Your task to perform on an android device: turn vacation reply on in the gmail app Image 0: 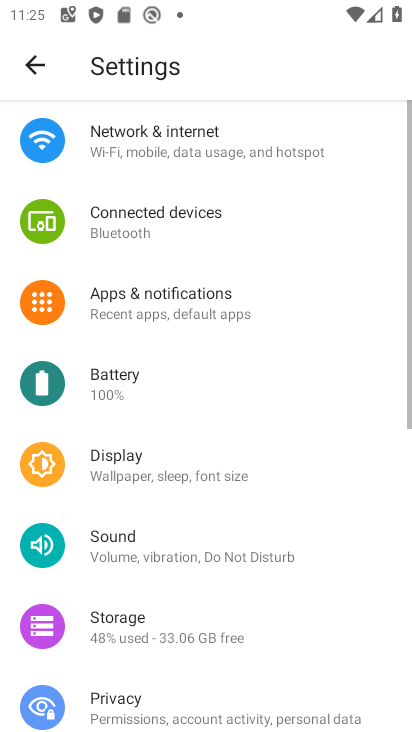
Step 0: press home button
Your task to perform on an android device: turn vacation reply on in the gmail app Image 1: 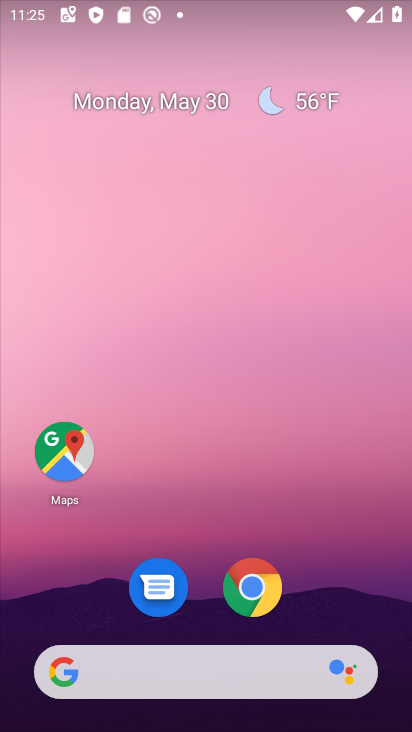
Step 1: drag from (327, 611) to (346, 4)
Your task to perform on an android device: turn vacation reply on in the gmail app Image 2: 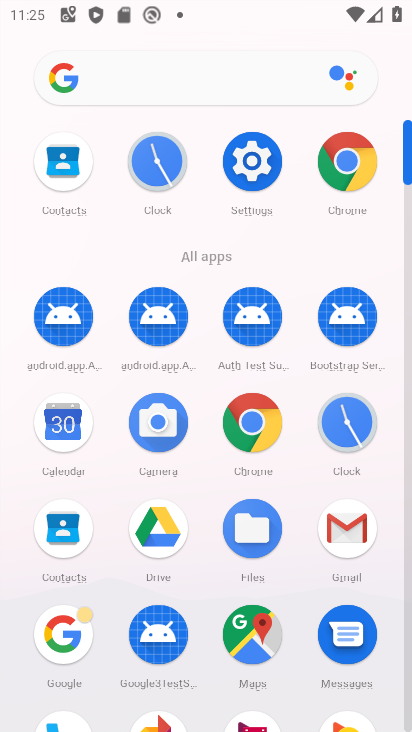
Step 2: click (343, 527)
Your task to perform on an android device: turn vacation reply on in the gmail app Image 3: 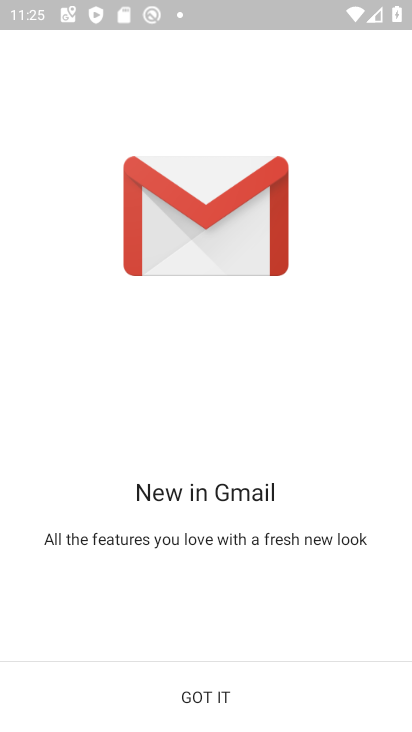
Step 3: click (222, 682)
Your task to perform on an android device: turn vacation reply on in the gmail app Image 4: 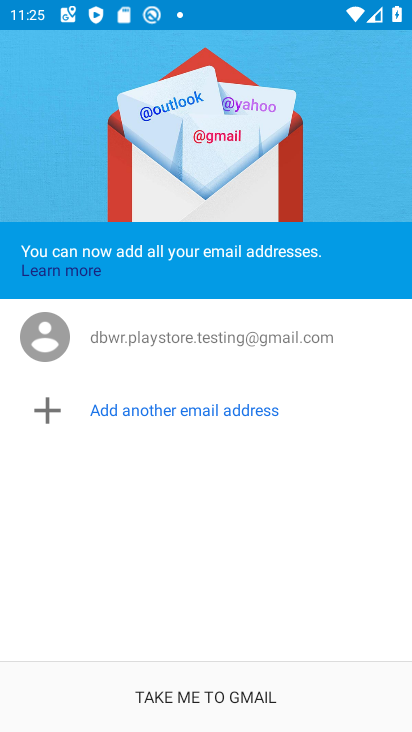
Step 4: click (219, 692)
Your task to perform on an android device: turn vacation reply on in the gmail app Image 5: 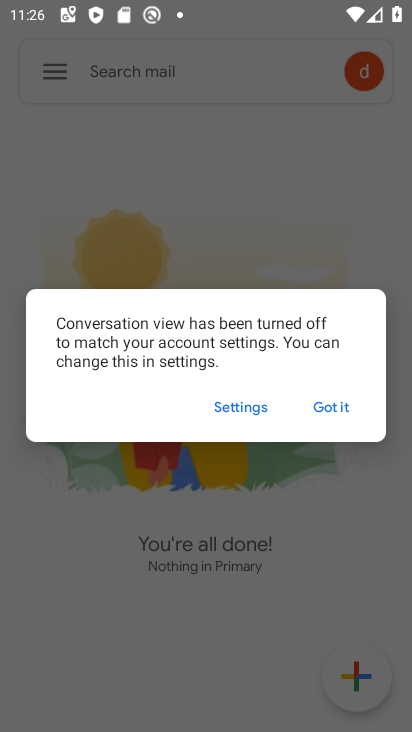
Step 5: click (334, 408)
Your task to perform on an android device: turn vacation reply on in the gmail app Image 6: 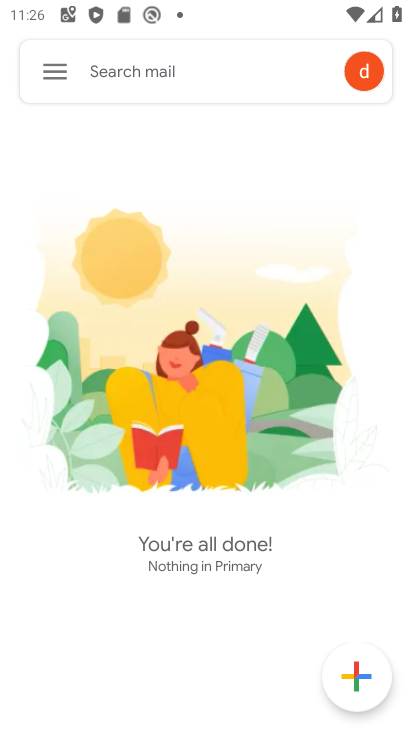
Step 6: click (55, 69)
Your task to perform on an android device: turn vacation reply on in the gmail app Image 7: 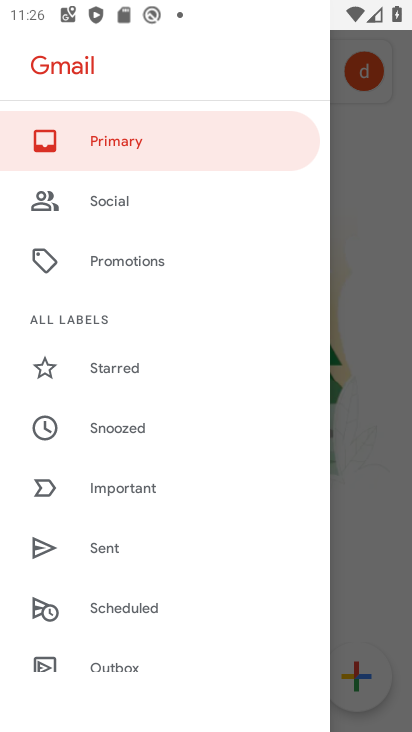
Step 7: drag from (148, 637) to (182, 216)
Your task to perform on an android device: turn vacation reply on in the gmail app Image 8: 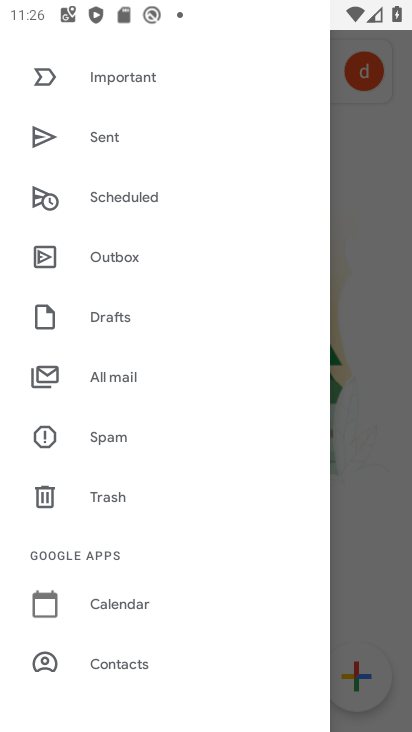
Step 8: drag from (109, 599) to (151, 183)
Your task to perform on an android device: turn vacation reply on in the gmail app Image 9: 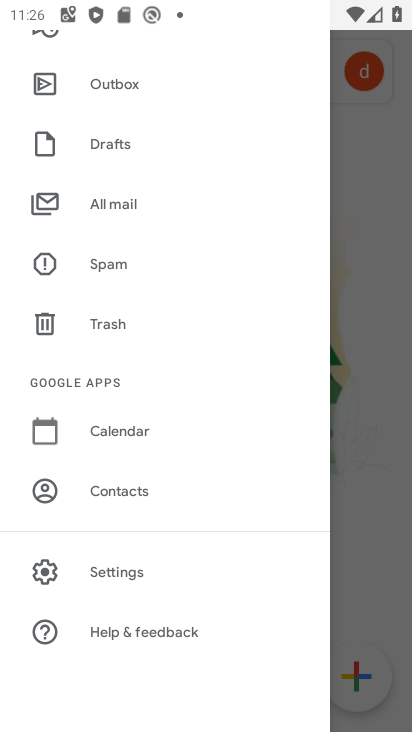
Step 9: click (120, 574)
Your task to perform on an android device: turn vacation reply on in the gmail app Image 10: 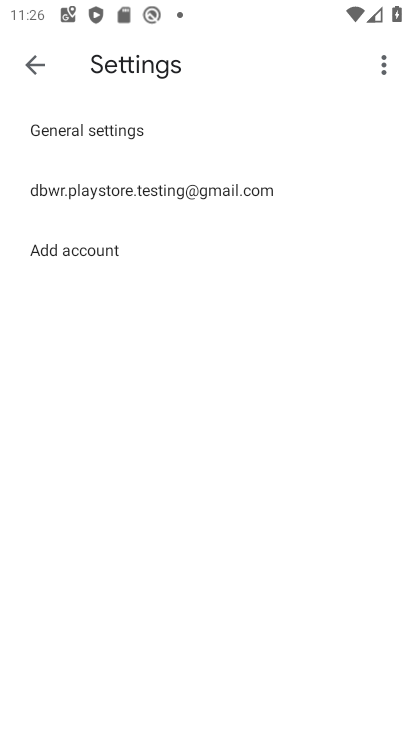
Step 10: click (114, 197)
Your task to perform on an android device: turn vacation reply on in the gmail app Image 11: 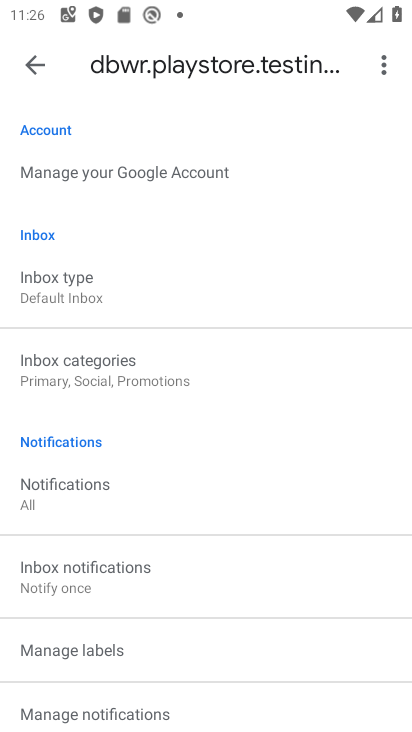
Step 11: drag from (145, 680) to (188, 200)
Your task to perform on an android device: turn vacation reply on in the gmail app Image 12: 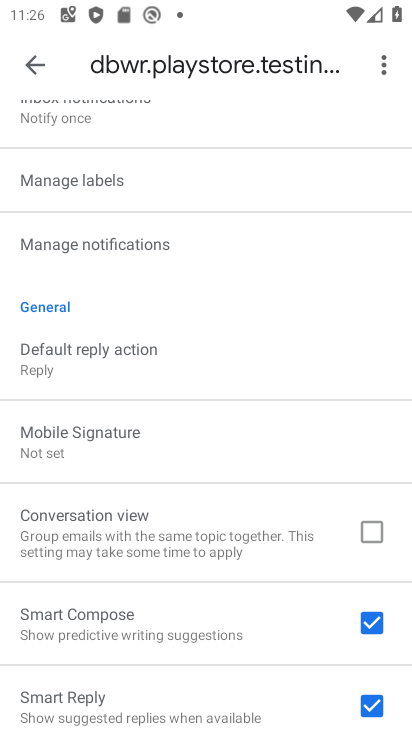
Step 12: drag from (183, 678) to (175, 218)
Your task to perform on an android device: turn vacation reply on in the gmail app Image 13: 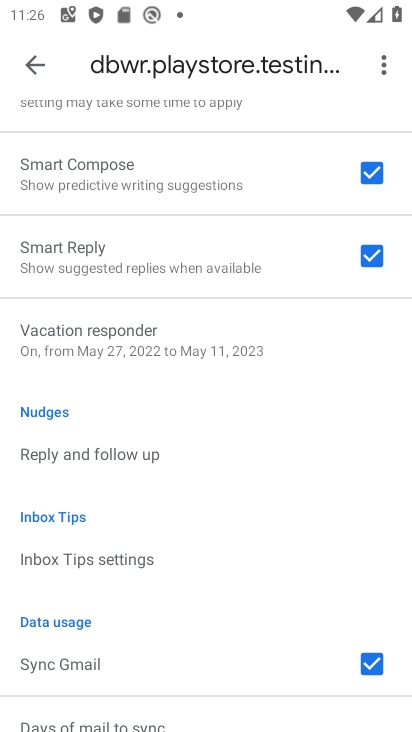
Step 13: click (184, 324)
Your task to perform on an android device: turn vacation reply on in the gmail app Image 14: 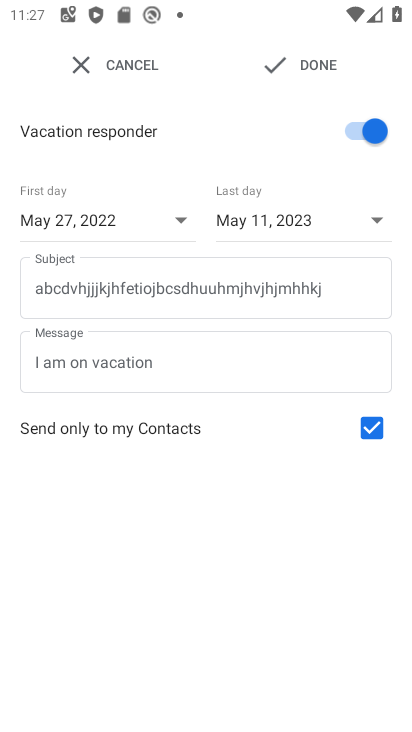
Step 14: click (319, 59)
Your task to perform on an android device: turn vacation reply on in the gmail app Image 15: 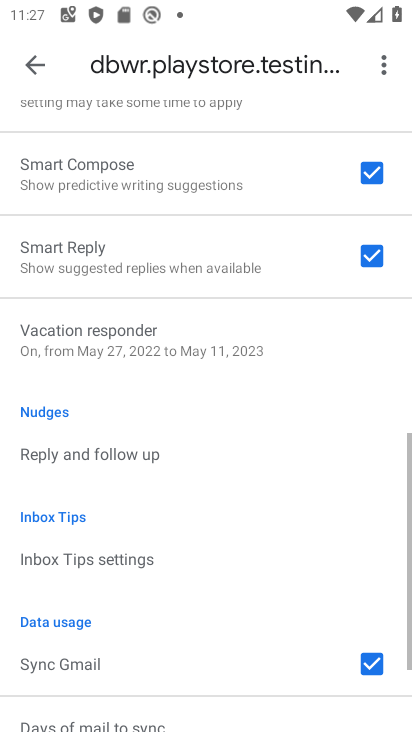
Step 15: task complete